Your task to perform on an android device: delete the emails in spam in the gmail app Image 0: 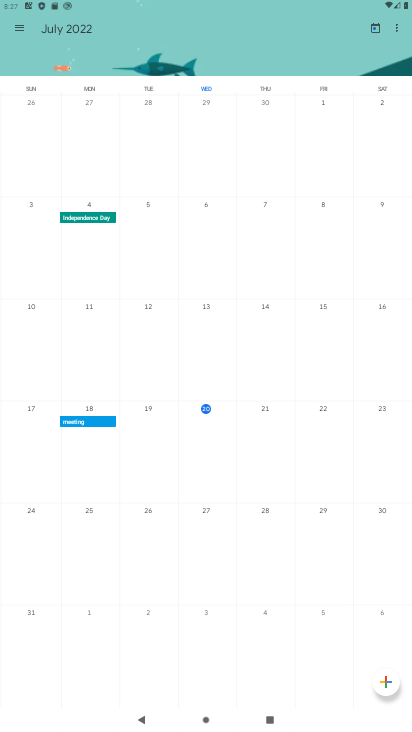
Step 0: press home button
Your task to perform on an android device: delete the emails in spam in the gmail app Image 1: 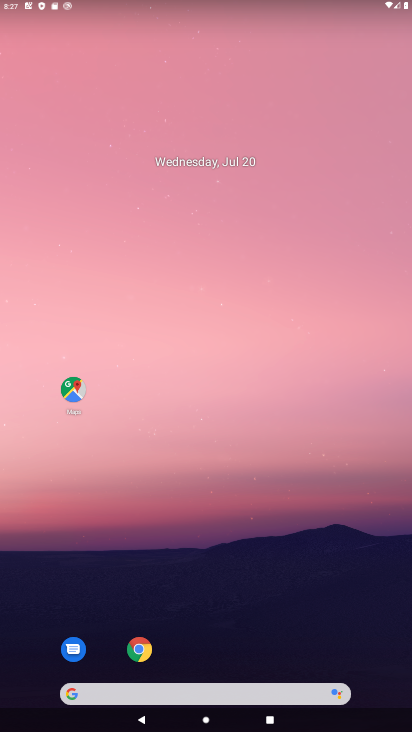
Step 1: drag from (192, 691) to (188, 5)
Your task to perform on an android device: delete the emails in spam in the gmail app Image 2: 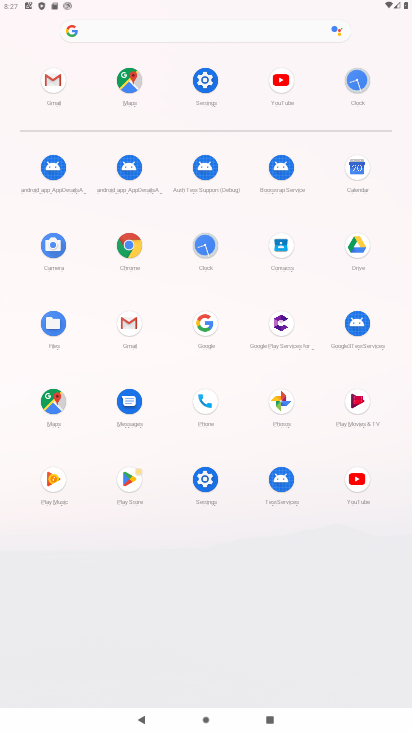
Step 2: click (54, 79)
Your task to perform on an android device: delete the emails in spam in the gmail app Image 3: 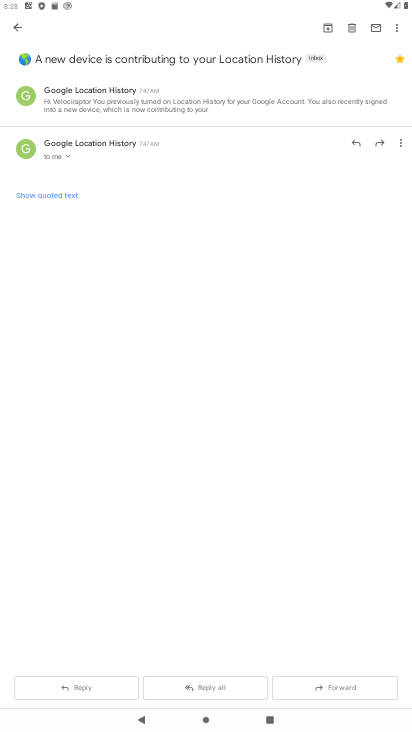
Step 3: press back button
Your task to perform on an android device: delete the emails in spam in the gmail app Image 4: 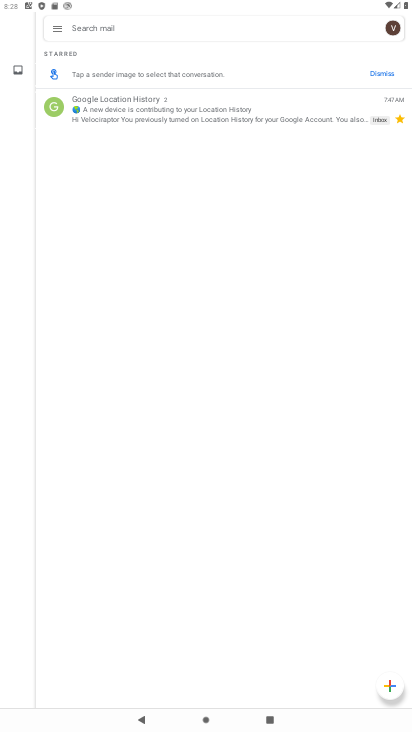
Step 4: click (56, 33)
Your task to perform on an android device: delete the emails in spam in the gmail app Image 5: 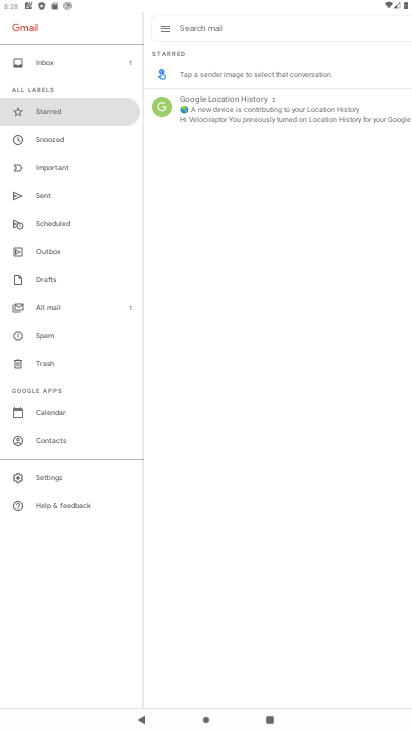
Step 5: click (44, 336)
Your task to perform on an android device: delete the emails in spam in the gmail app Image 6: 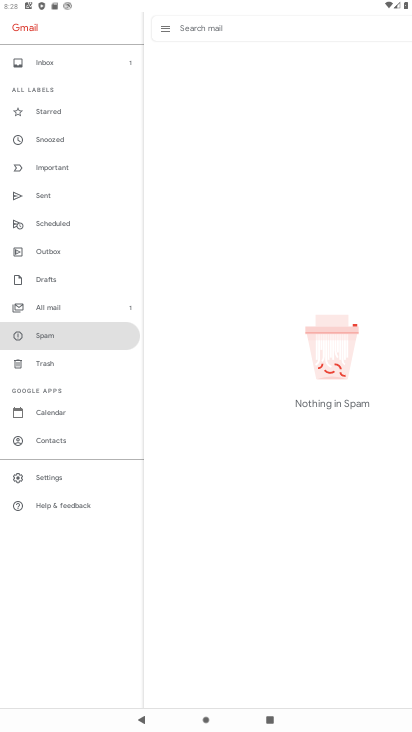
Step 6: task complete